Your task to perform on an android device: change notification settings in the gmail app Image 0: 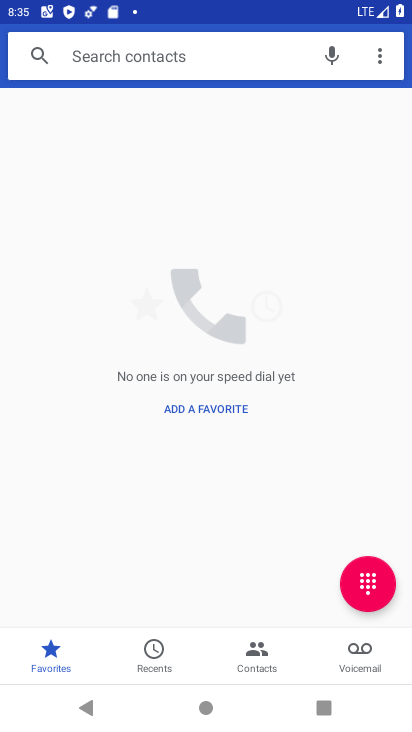
Step 0: press home button
Your task to perform on an android device: change notification settings in the gmail app Image 1: 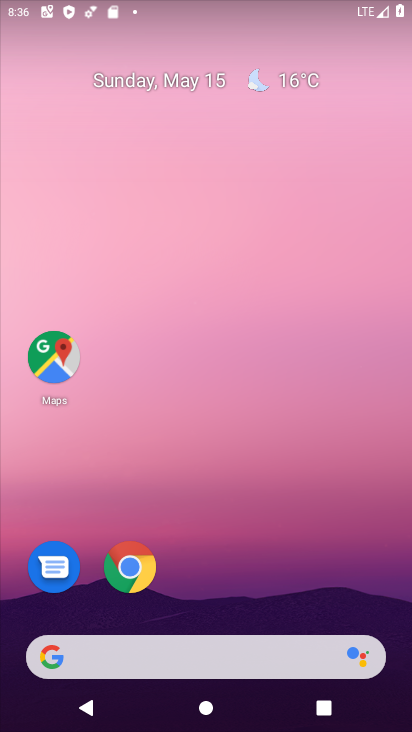
Step 1: drag from (217, 631) to (266, 35)
Your task to perform on an android device: change notification settings in the gmail app Image 2: 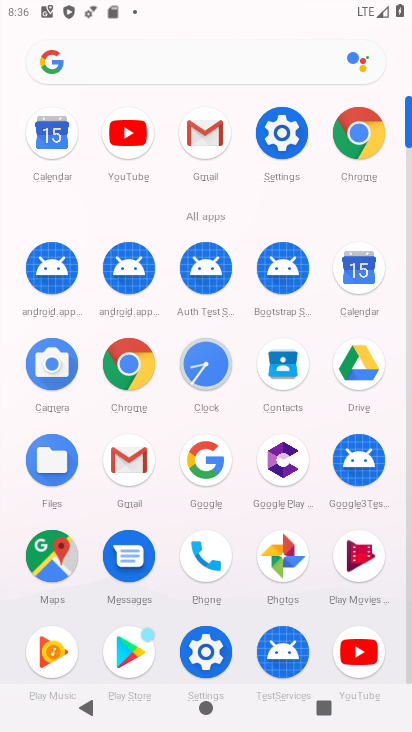
Step 2: click (119, 474)
Your task to perform on an android device: change notification settings in the gmail app Image 3: 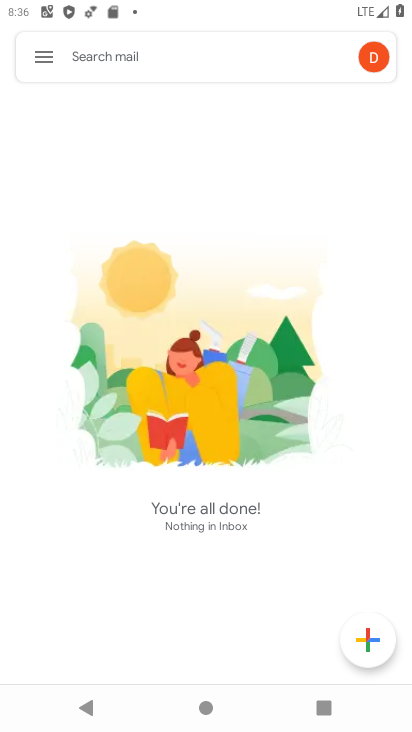
Step 3: press home button
Your task to perform on an android device: change notification settings in the gmail app Image 4: 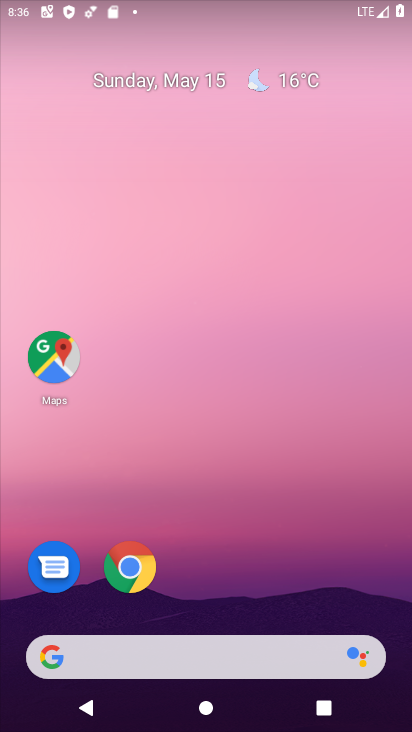
Step 4: drag from (181, 648) to (179, 216)
Your task to perform on an android device: change notification settings in the gmail app Image 5: 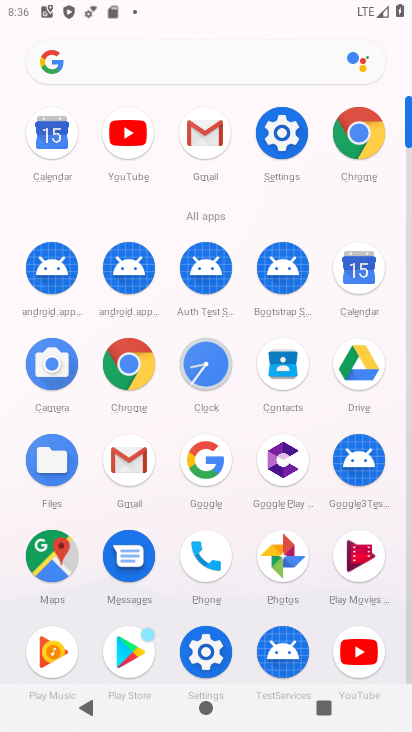
Step 5: click (126, 469)
Your task to perform on an android device: change notification settings in the gmail app Image 6: 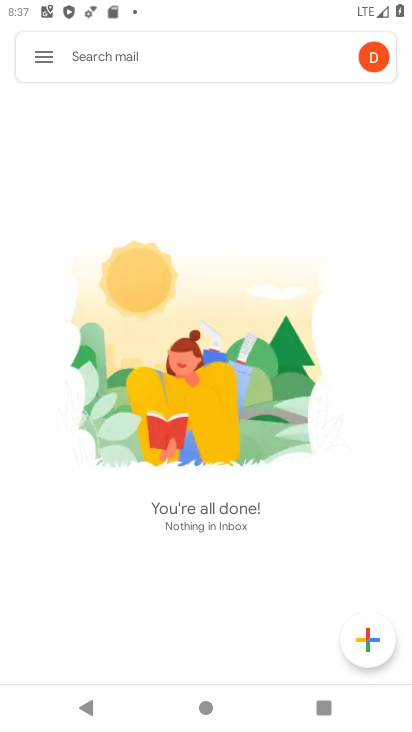
Step 6: click (50, 54)
Your task to perform on an android device: change notification settings in the gmail app Image 7: 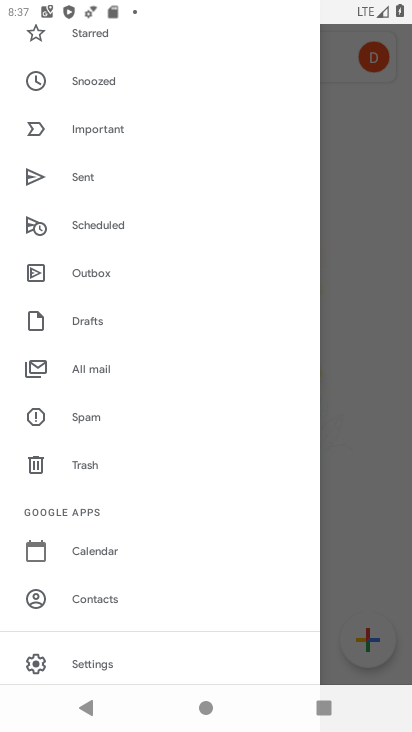
Step 7: click (100, 659)
Your task to perform on an android device: change notification settings in the gmail app Image 8: 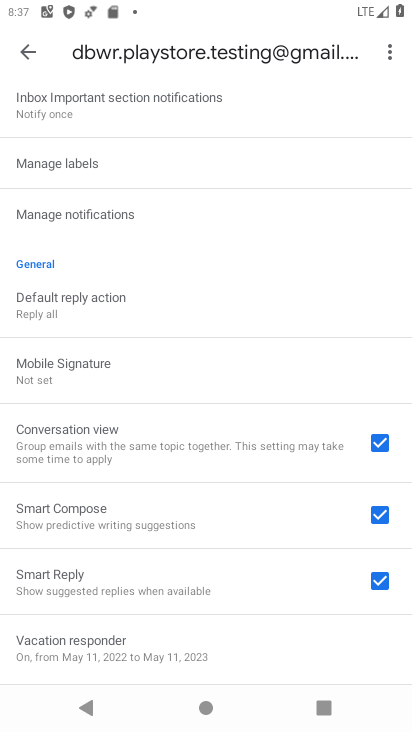
Step 8: click (49, 213)
Your task to perform on an android device: change notification settings in the gmail app Image 9: 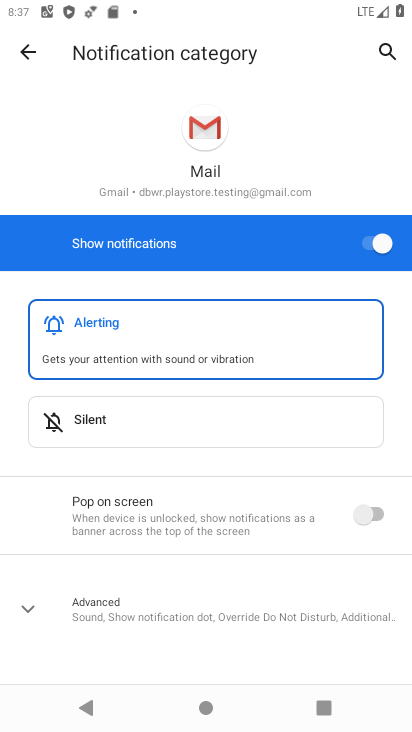
Step 9: click (263, 407)
Your task to perform on an android device: change notification settings in the gmail app Image 10: 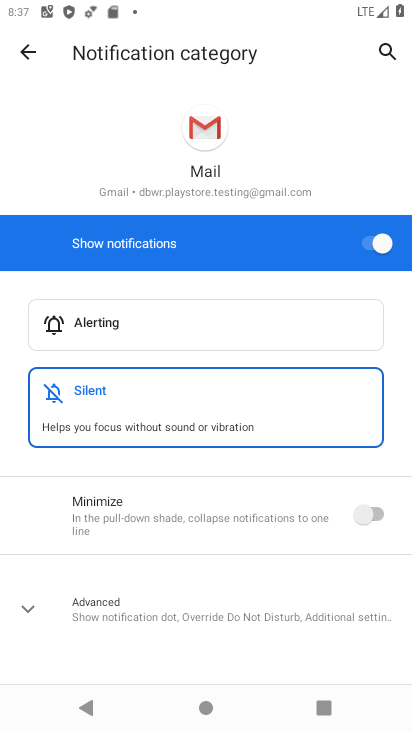
Step 10: task complete